Your task to perform on an android device: turn on the 24-hour format for clock Image 0: 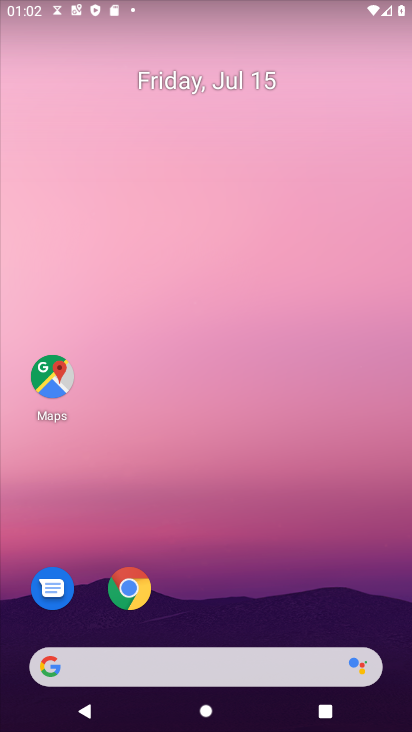
Step 0: drag from (191, 637) to (253, 9)
Your task to perform on an android device: turn on the 24-hour format for clock Image 1: 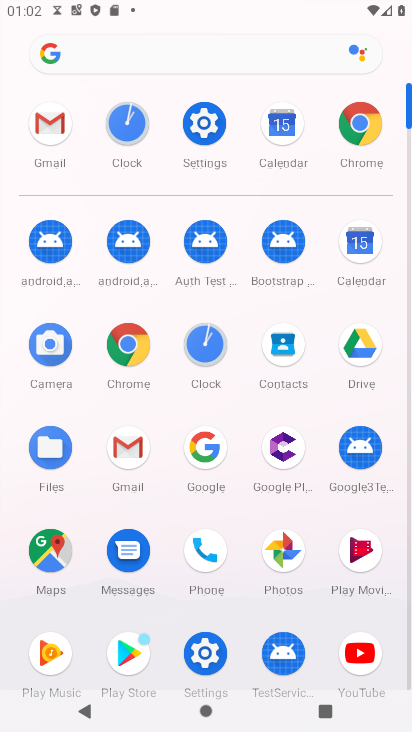
Step 1: click (200, 353)
Your task to perform on an android device: turn on the 24-hour format for clock Image 2: 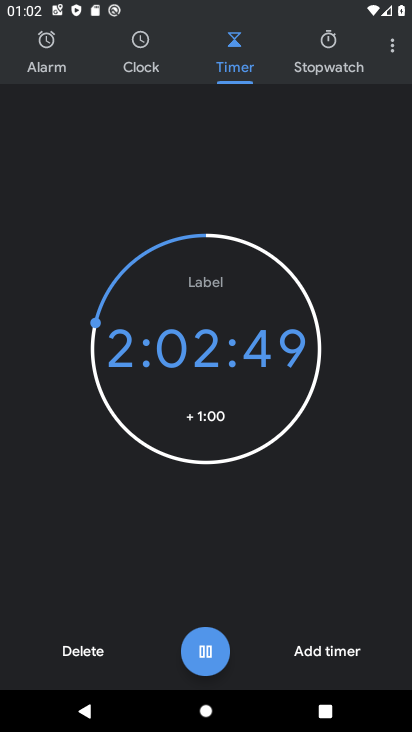
Step 2: click (381, 48)
Your task to perform on an android device: turn on the 24-hour format for clock Image 3: 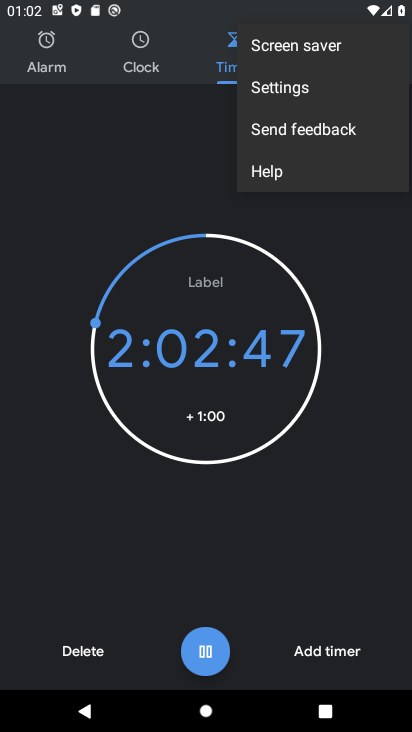
Step 3: click (300, 84)
Your task to perform on an android device: turn on the 24-hour format for clock Image 4: 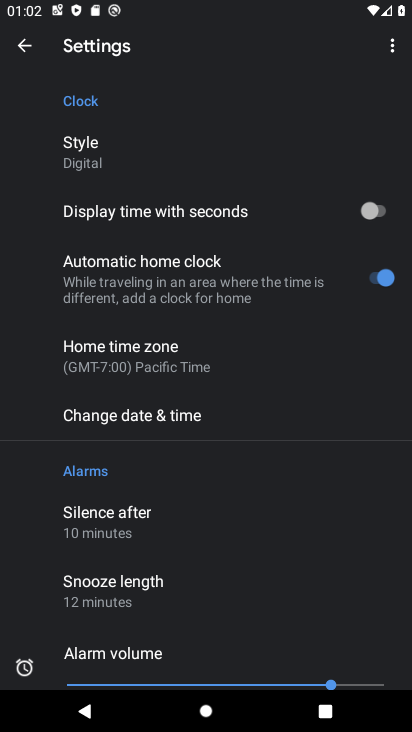
Step 4: click (161, 411)
Your task to perform on an android device: turn on the 24-hour format for clock Image 5: 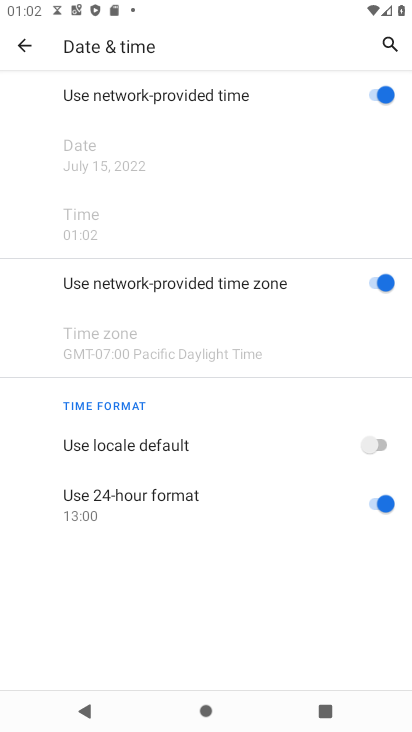
Step 5: task complete